Your task to perform on an android device: toggle notification dots Image 0: 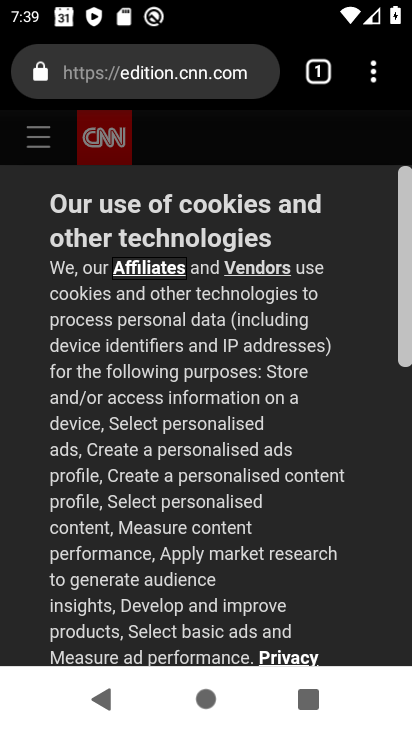
Step 0: press home button
Your task to perform on an android device: toggle notification dots Image 1: 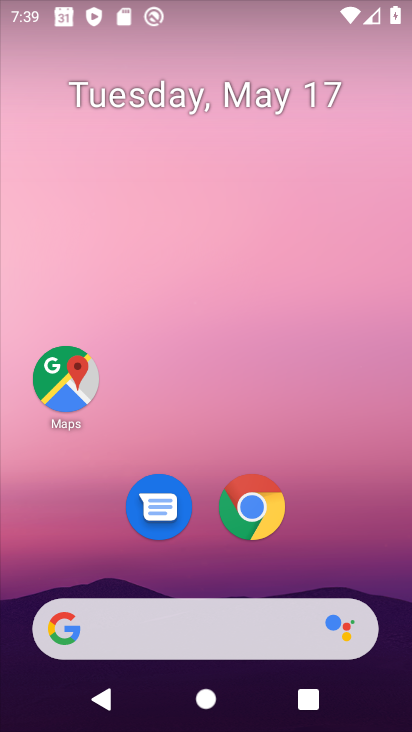
Step 1: drag from (349, 561) to (287, 21)
Your task to perform on an android device: toggle notification dots Image 2: 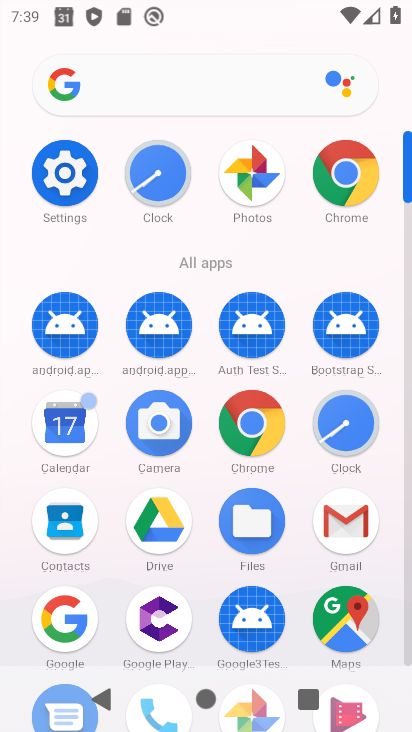
Step 2: click (67, 197)
Your task to perform on an android device: toggle notification dots Image 3: 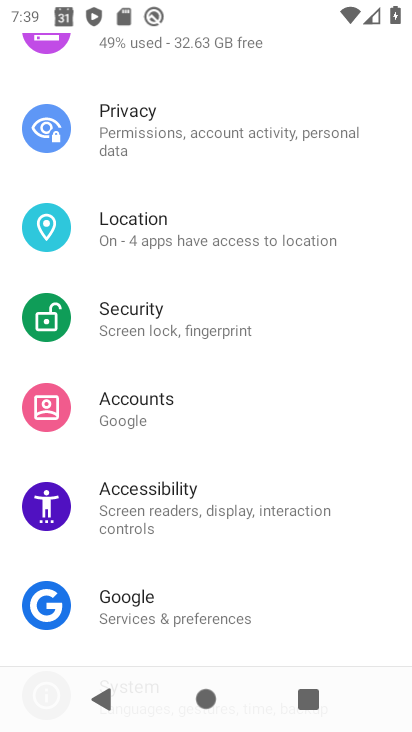
Step 3: drag from (270, 205) to (299, 548)
Your task to perform on an android device: toggle notification dots Image 4: 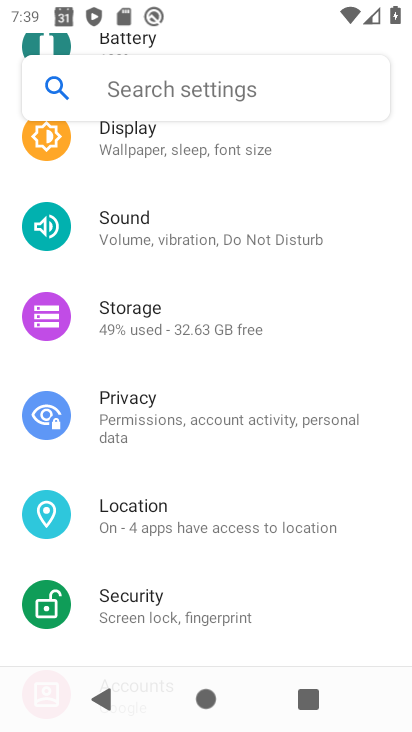
Step 4: drag from (273, 243) to (300, 576)
Your task to perform on an android device: toggle notification dots Image 5: 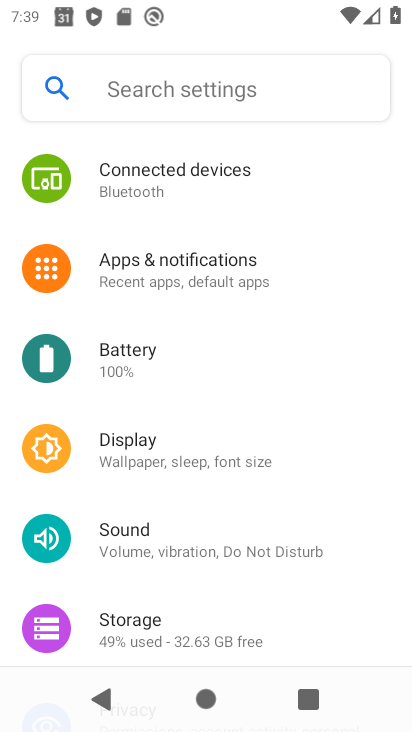
Step 5: click (150, 280)
Your task to perform on an android device: toggle notification dots Image 6: 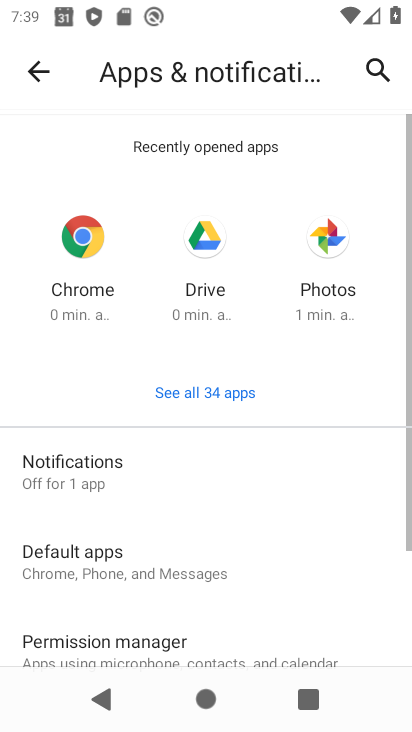
Step 6: click (62, 478)
Your task to perform on an android device: toggle notification dots Image 7: 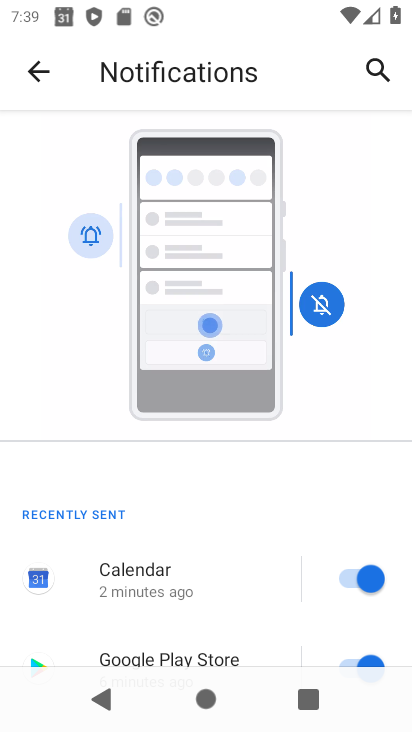
Step 7: drag from (242, 562) to (194, 27)
Your task to perform on an android device: toggle notification dots Image 8: 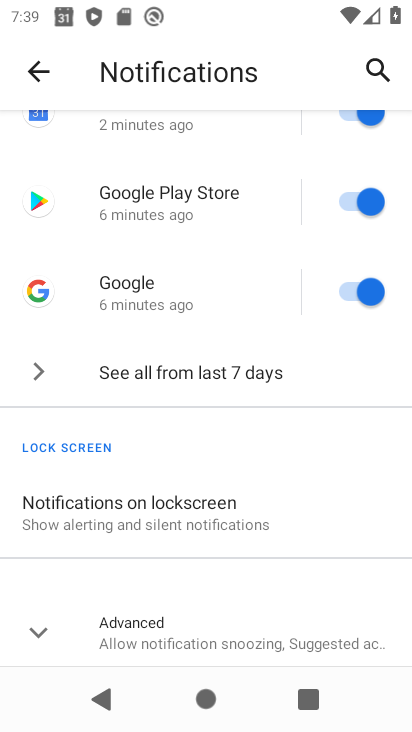
Step 8: drag from (177, 566) to (156, 122)
Your task to perform on an android device: toggle notification dots Image 9: 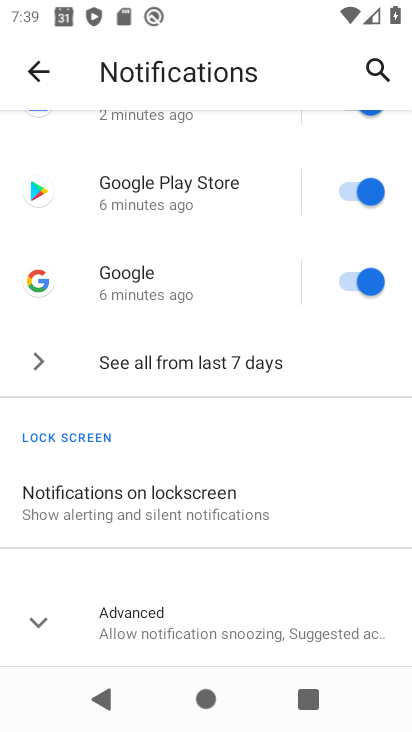
Step 9: click (37, 628)
Your task to perform on an android device: toggle notification dots Image 10: 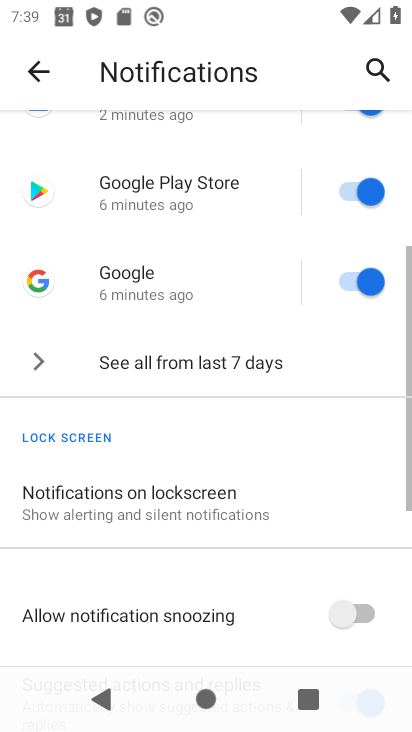
Step 10: drag from (180, 616) to (170, 80)
Your task to perform on an android device: toggle notification dots Image 11: 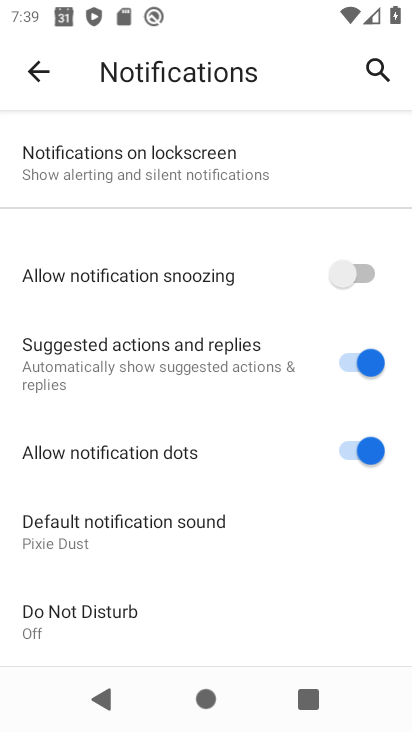
Step 11: click (360, 446)
Your task to perform on an android device: toggle notification dots Image 12: 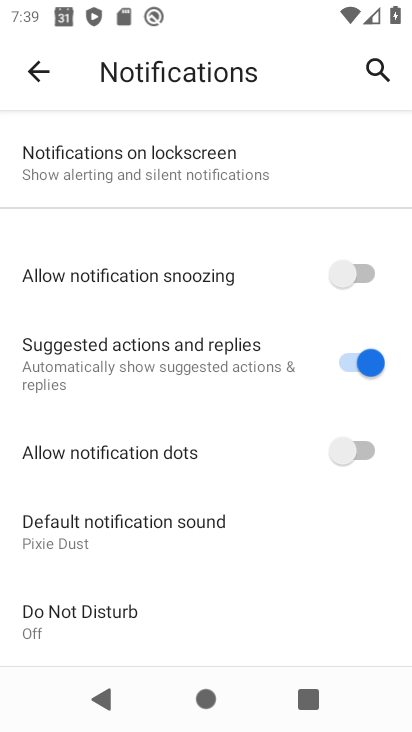
Step 12: task complete